Your task to perform on an android device: Go to Wikipedia Image 0: 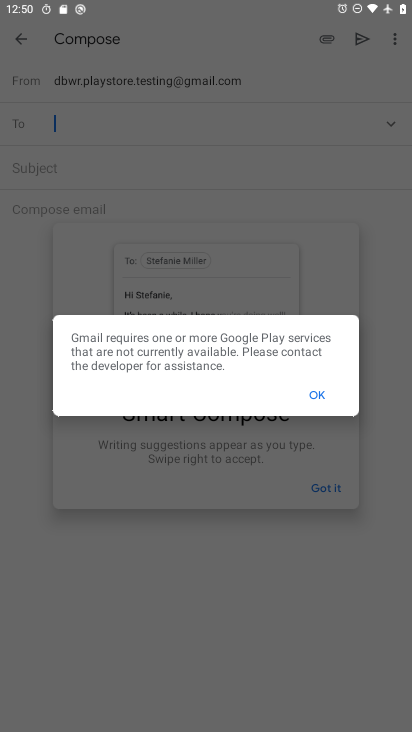
Step 0: press home button
Your task to perform on an android device: Go to Wikipedia Image 1: 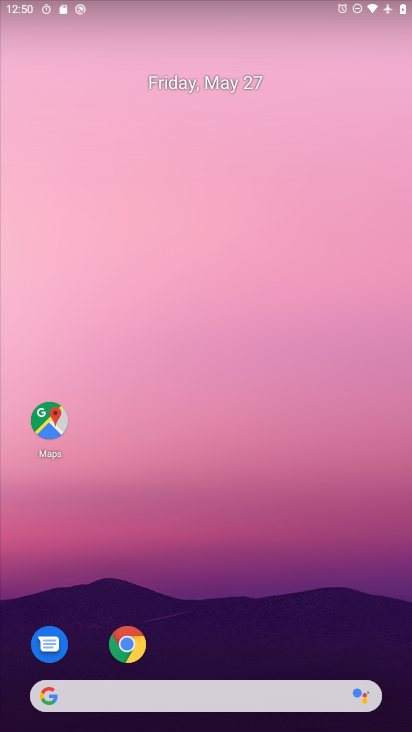
Step 1: drag from (209, 641) to (181, 185)
Your task to perform on an android device: Go to Wikipedia Image 2: 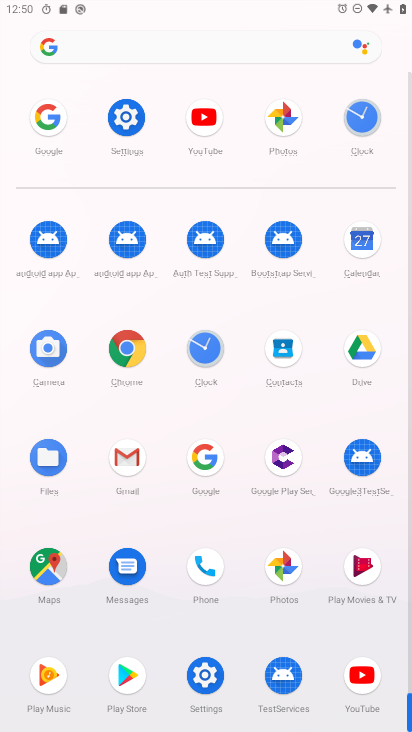
Step 2: click (212, 451)
Your task to perform on an android device: Go to Wikipedia Image 3: 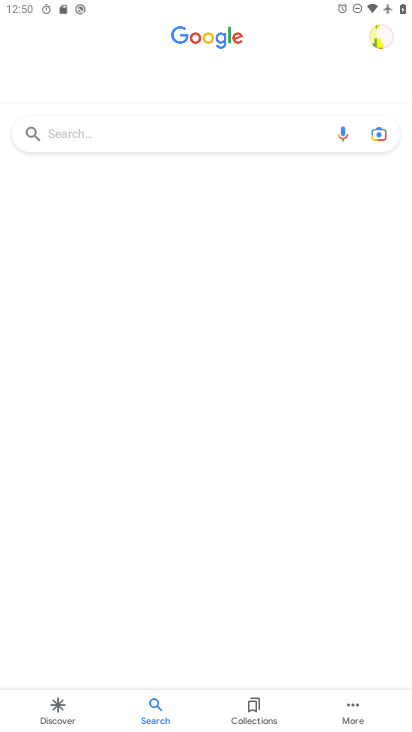
Step 3: click (162, 134)
Your task to perform on an android device: Go to Wikipedia Image 4: 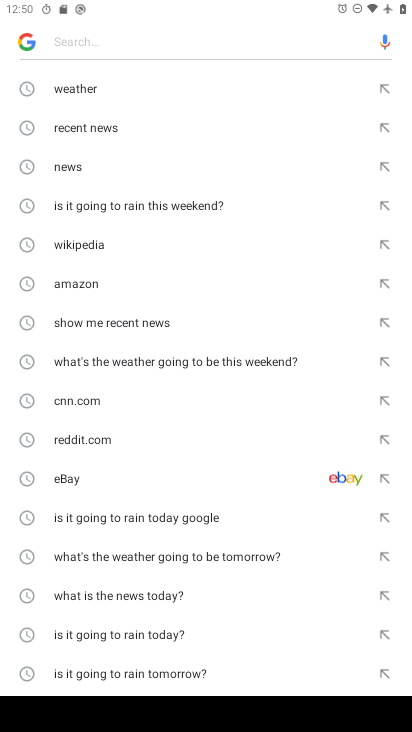
Step 4: type "Wikipedia"
Your task to perform on an android device: Go to Wikipedia Image 5: 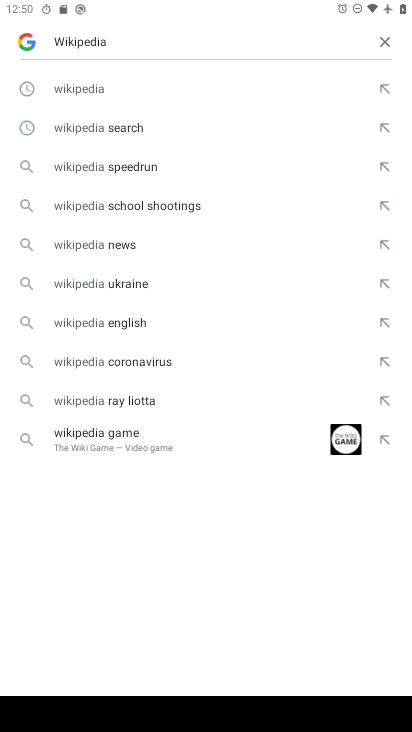
Step 5: click (88, 92)
Your task to perform on an android device: Go to Wikipedia Image 6: 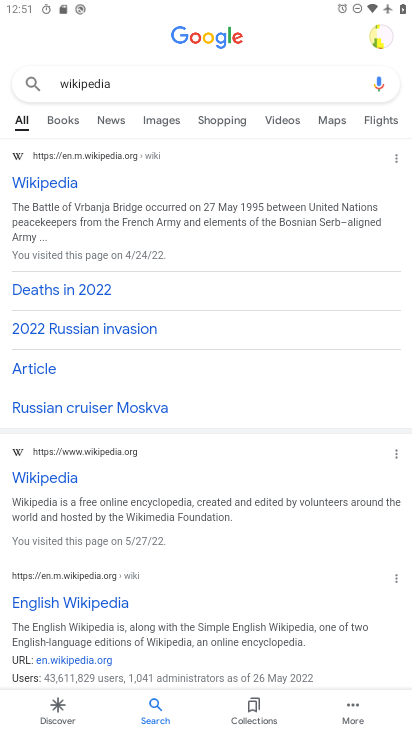
Step 6: click (68, 181)
Your task to perform on an android device: Go to Wikipedia Image 7: 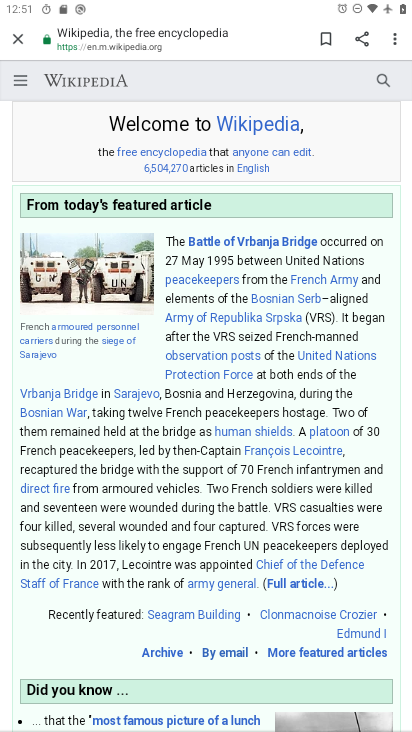
Step 7: task complete